Your task to perform on an android device: What's the weather going to be this weekend? Image 0: 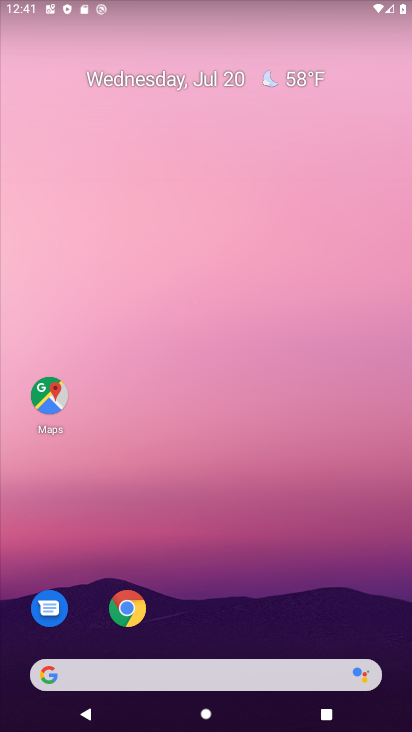
Step 0: click (132, 602)
Your task to perform on an android device: What's the weather going to be this weekend? Image 1: 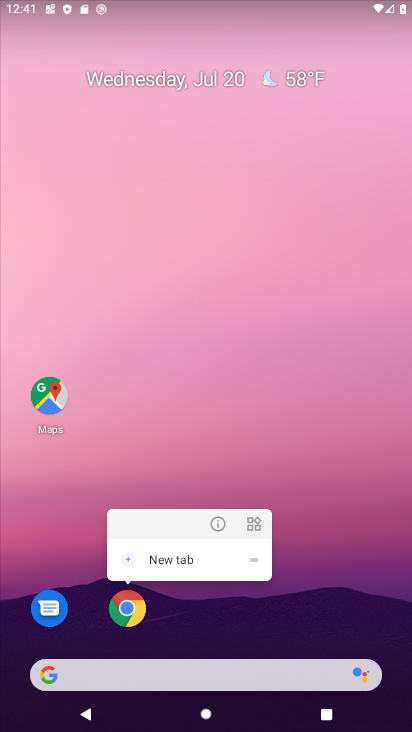
Step 1: click (128, 605)
Your task to perform on an android device: What's the weather going to be this weekend? Image 2: 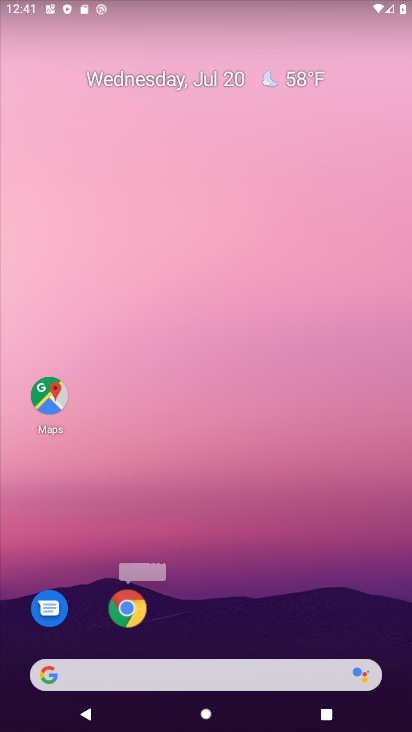
Step 2: click (129, 614)
Your task to perform on an android device: What's the weather going to be this weekend? Image 3: 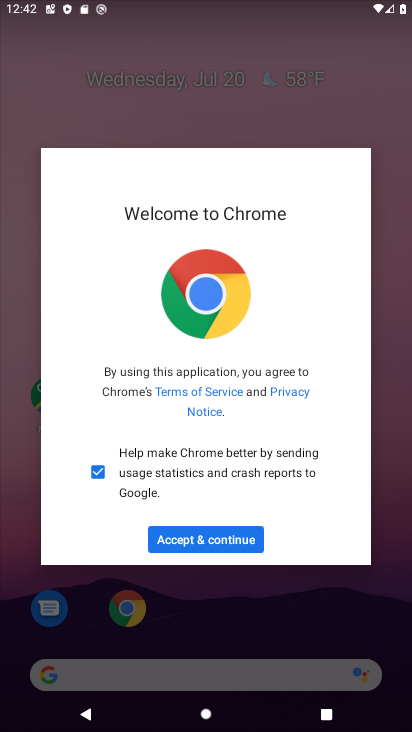
Step 3: click (253, 545)
Your task to perform on an android device: What's the weather going to be this weekend? Image 4: 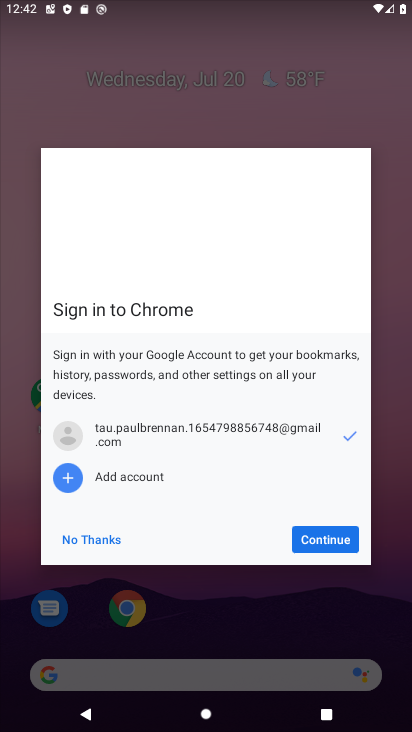
Step 4: click (349, 550)
Your task to perform on an android device: What's the weather going to be this weekend? Image 5: 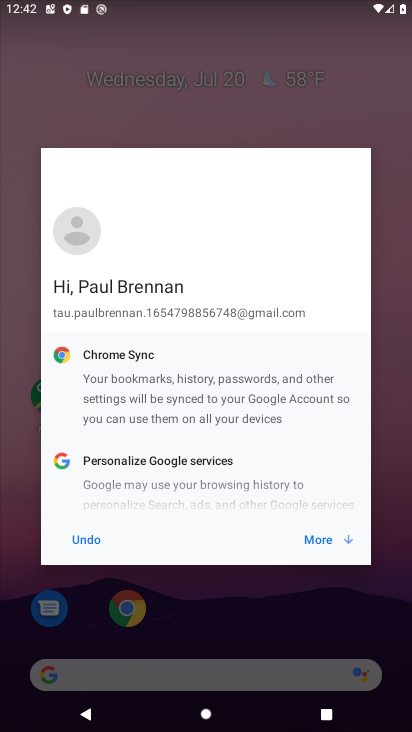
Step 5: click (348, 550)
Your task to perform on an android device: What's the weather going to be this weekend? Image 6: 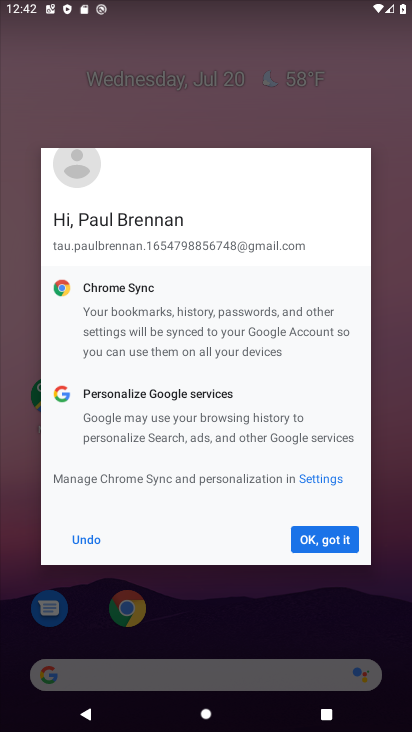
Step 6: click (347, 547)
Your task to perform on an android device: What's the weather going to be this weekend? Image 7: 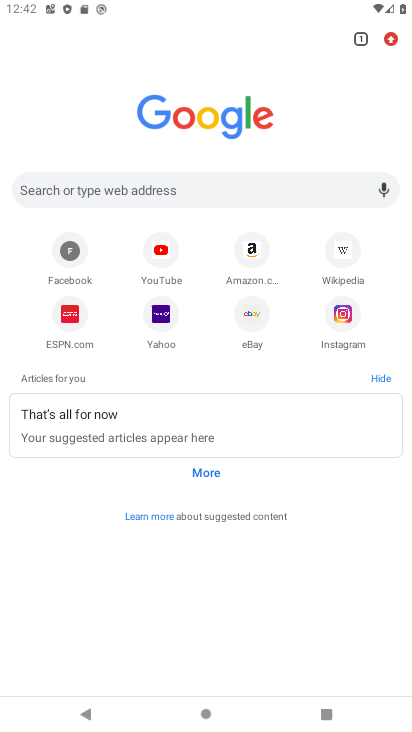
Step 7: click (113, 192)
Your task to perform on an android device: What's the weather going to be this weekend? Image 8: 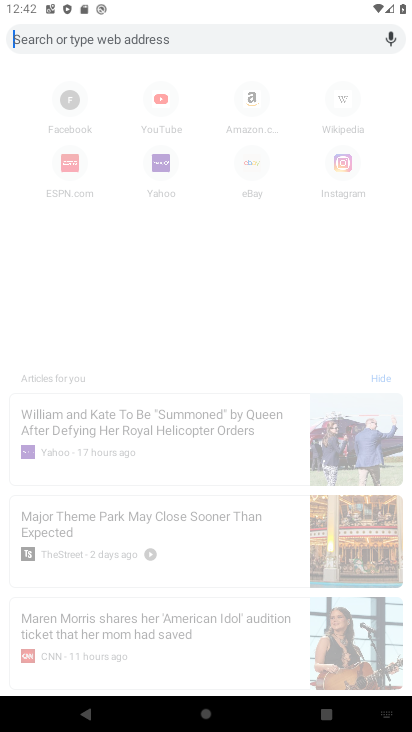
Step 8: type "What's the weather going to be this weekend?"
Your task to perform on an android device: What's the weather going to be this weekend? Image 9: 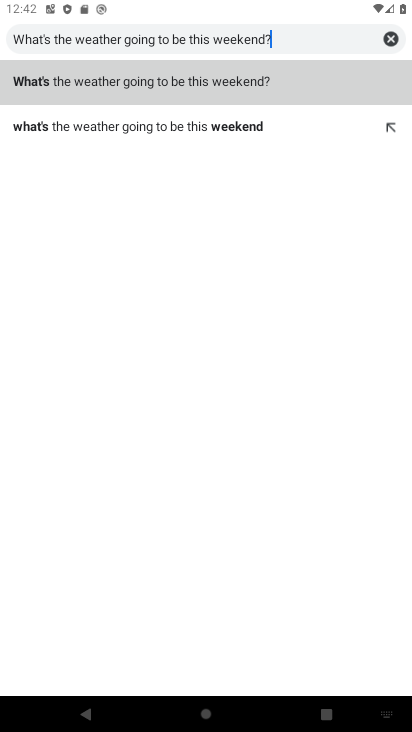
Step 9: press enter
Your task to perform on an android device: What's the weather going to be this weekend? Image 10: 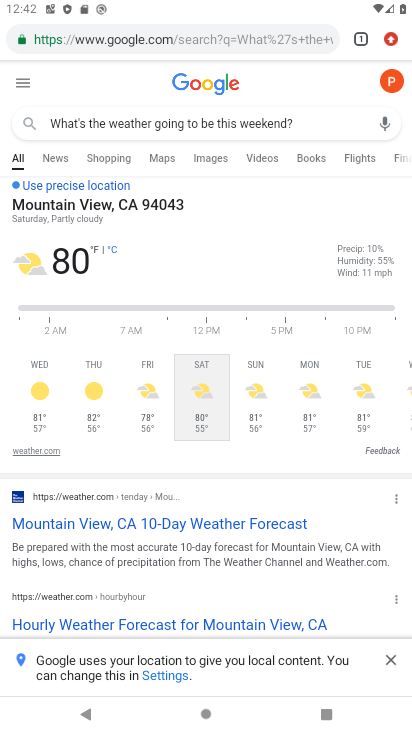
Step 10: task complete